Your task to perform on an android device: Open Chrome and go to the settings page Image 0: 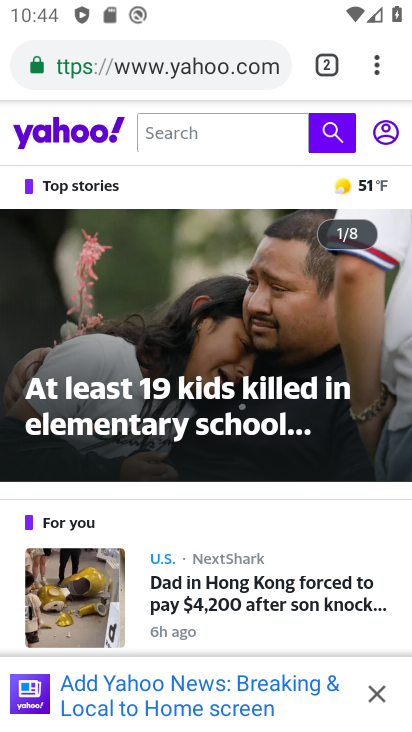
Step 0: drag from (374, 54) to (193, 643)
Your task to perform on an android device: Open Chrome and go to the settings page Image 1: 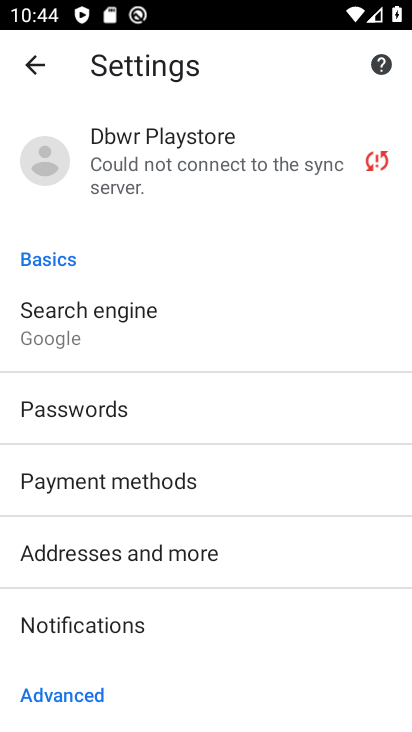
Step 1: task complete